Your task to perform on an android device: What's the weather going to be this weekend? Image 0: 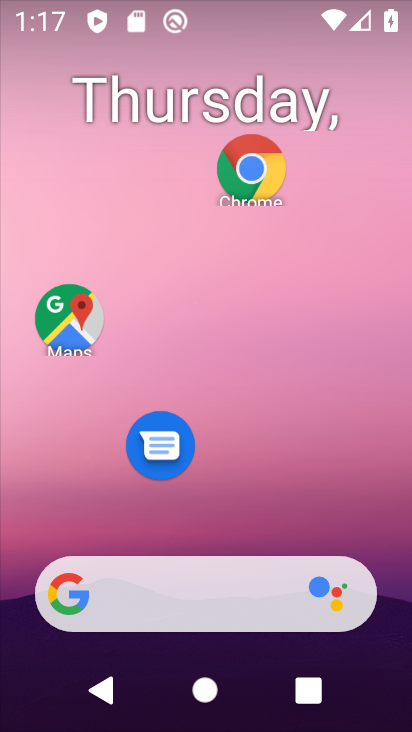
Step 0: drag from (272, 644) to (348, 23)
Your task to perform on an android device: What's the weather going to be this weekend? Image 1: 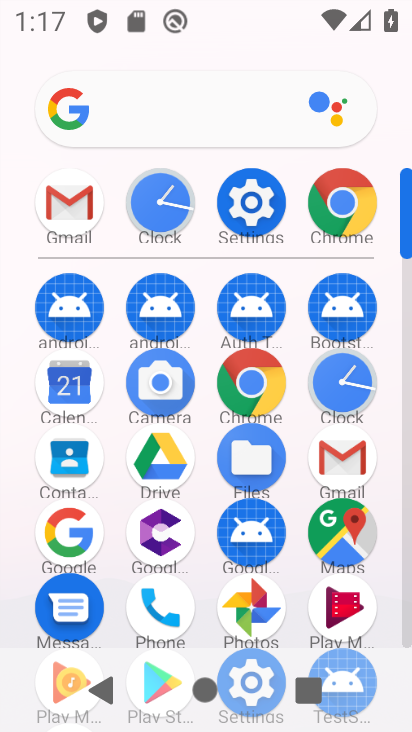
Step 1: click (140, 122)
Your task to perform on an android device: What's the weather going to be this weekend? Image 2: 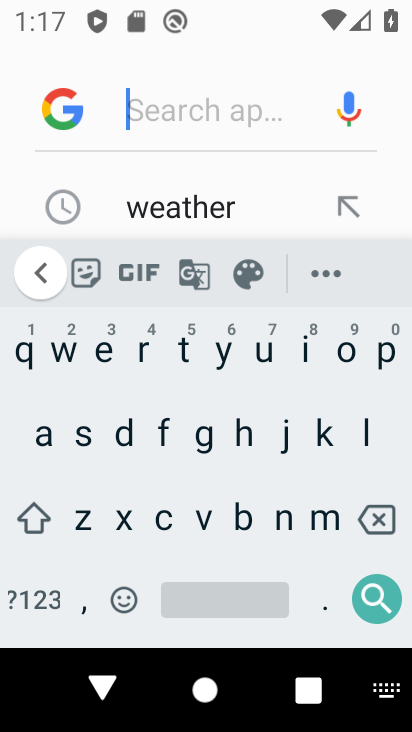
Step 2: click (164, 198)
Your task to perform on an android device: What's the weather going to be this weekend? Image 3: 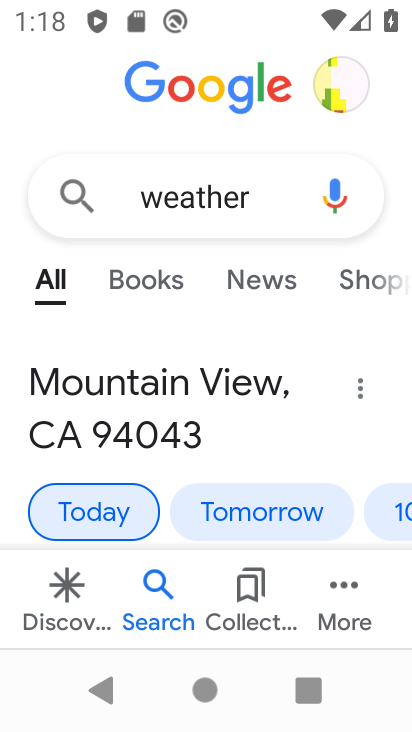
Step 3: click (390, 510)
Your task to perform on an android device: What's the weather going to be this weekend? Image 4: 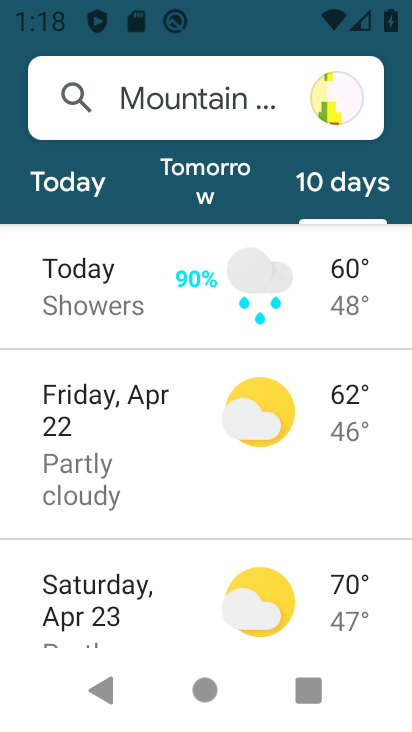
Step 4: task complete